Your task to perform on an android device: Search for a runner rug on Crate & Barrel. Image 0: 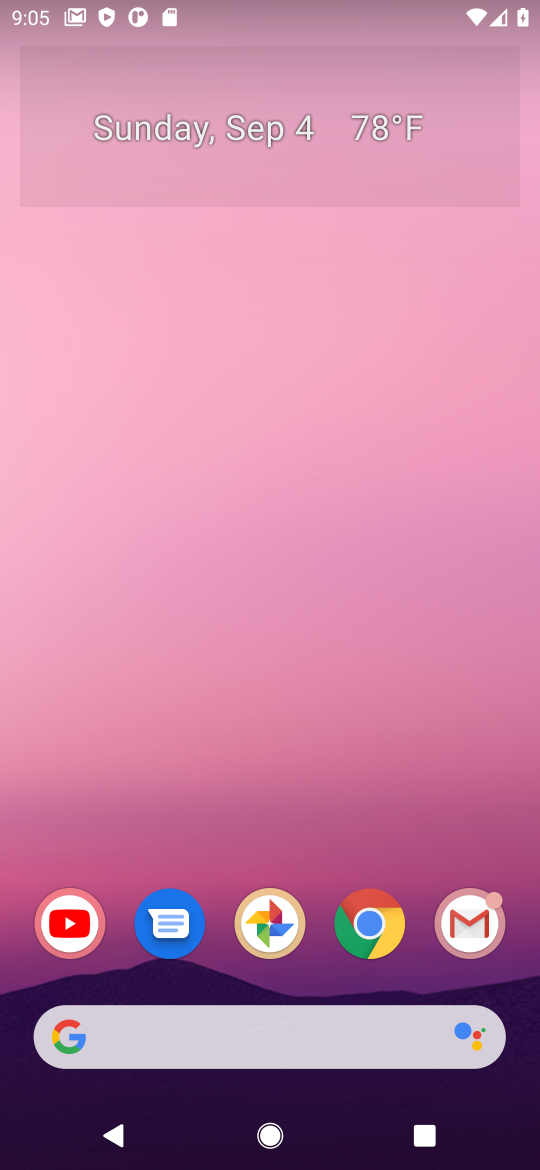
Step 0: click (367, 935)
Your task to perform on an android device: Search for a runner rug on Crate & Barrel. Image 1: 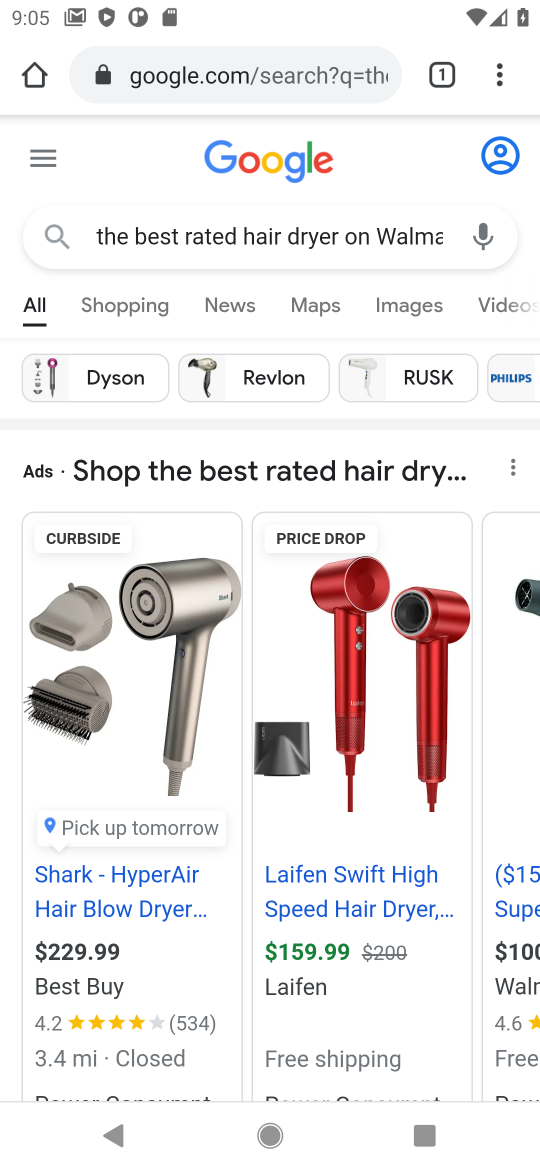
Step 1: click (147, 87)
Your task to perform on an android device: Search for a runner rug on Crate & Barrel. Image 2: 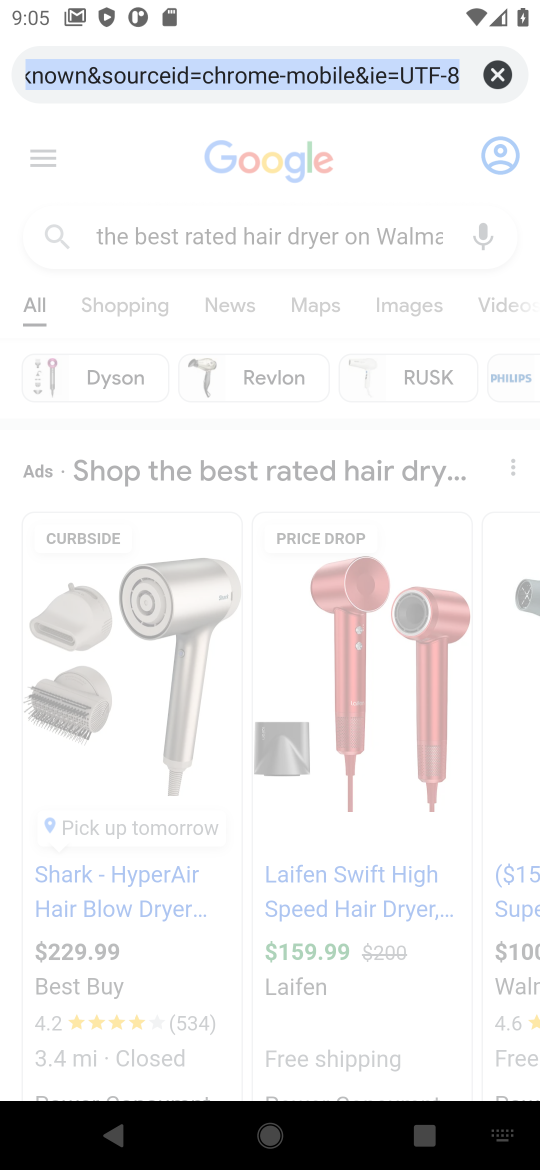
Step 2: click (501, 74)
Your task to perform on an android device: Search for a runner rug on Crate & Barrel. Image 3: 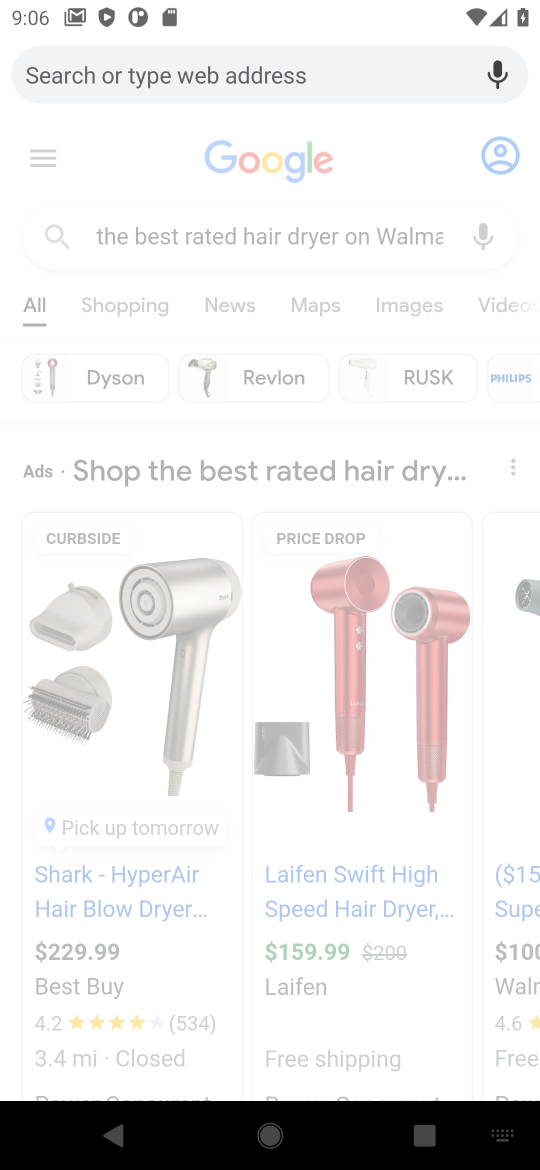
Step 3: type "runner rug on Crate & Barrel"
Your task to perform on an android device: Search for a runner rug on Crate & Barrel. Image 4: 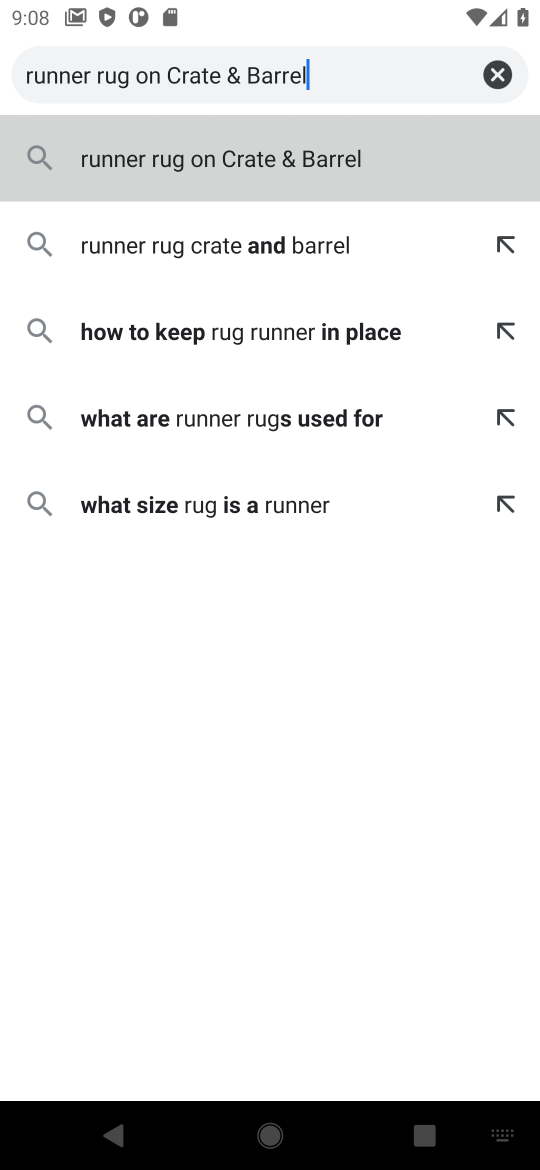
Step 4: click (281, 143)
Your task to perform on an android device: Search for a runner rug on Crate & Barrel. Image 5: 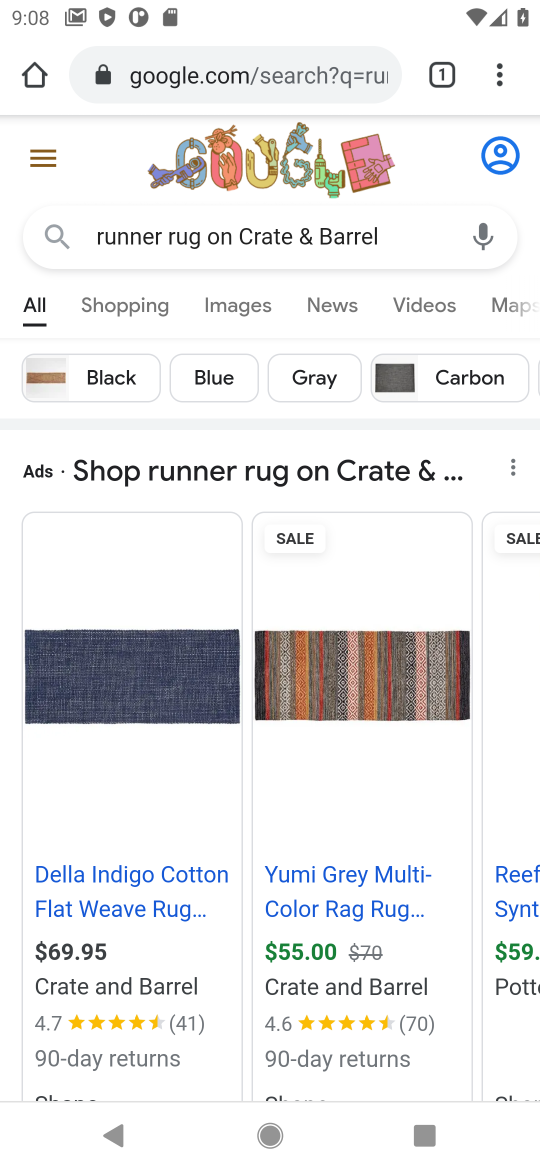
Step 5: task complete